Your task to perform on an android device: Turn off the flashlight Image 0: 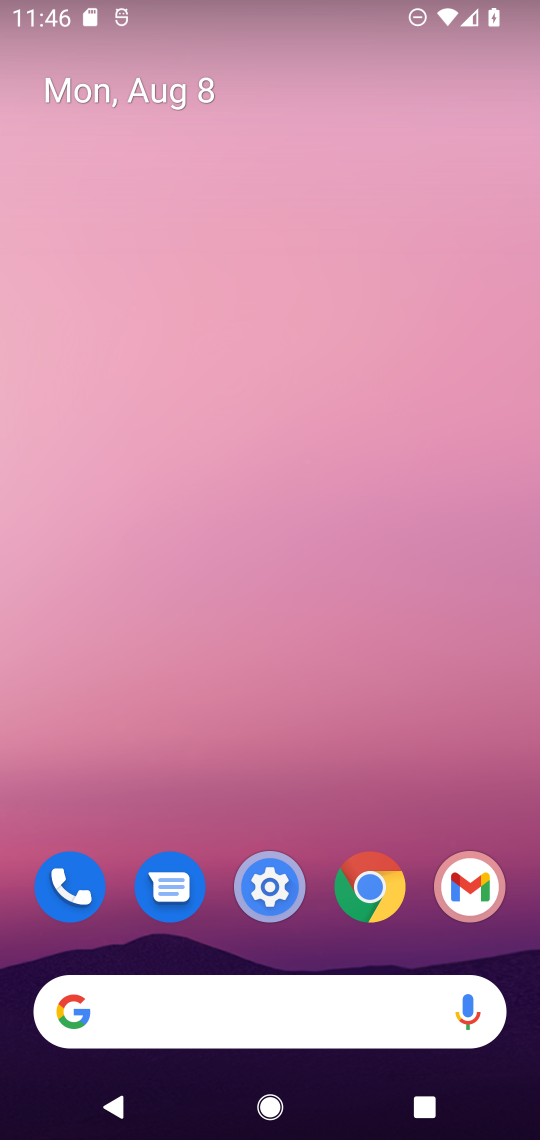
Step 0: click (270, 892)
Your task to perform on an android device: Turn off the flashlight Image 1: 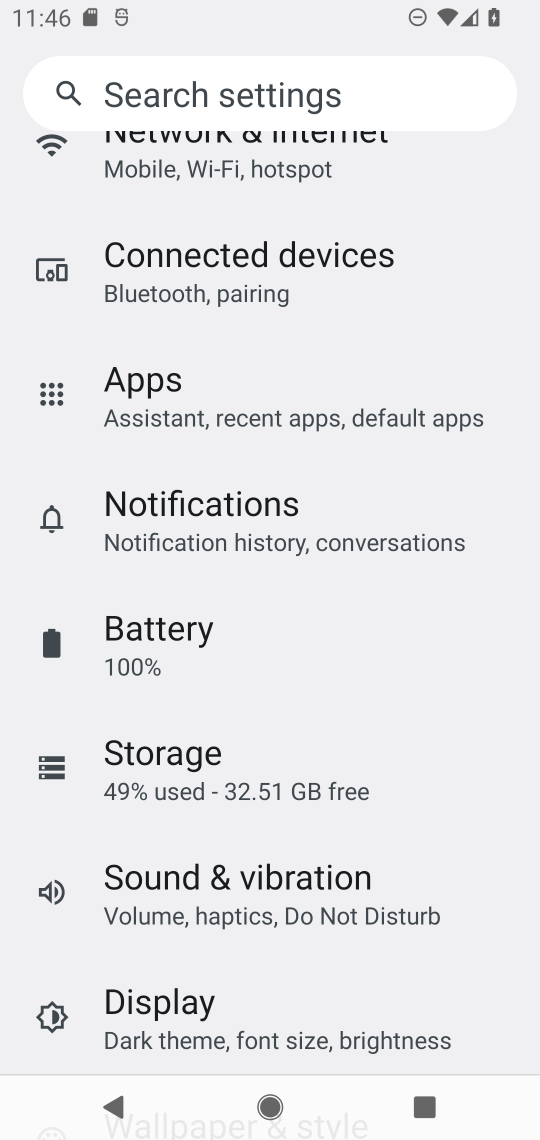
Step 1: click (165, 1023)
Your task to perform on an android device: Turn off the flashlight Image 2: 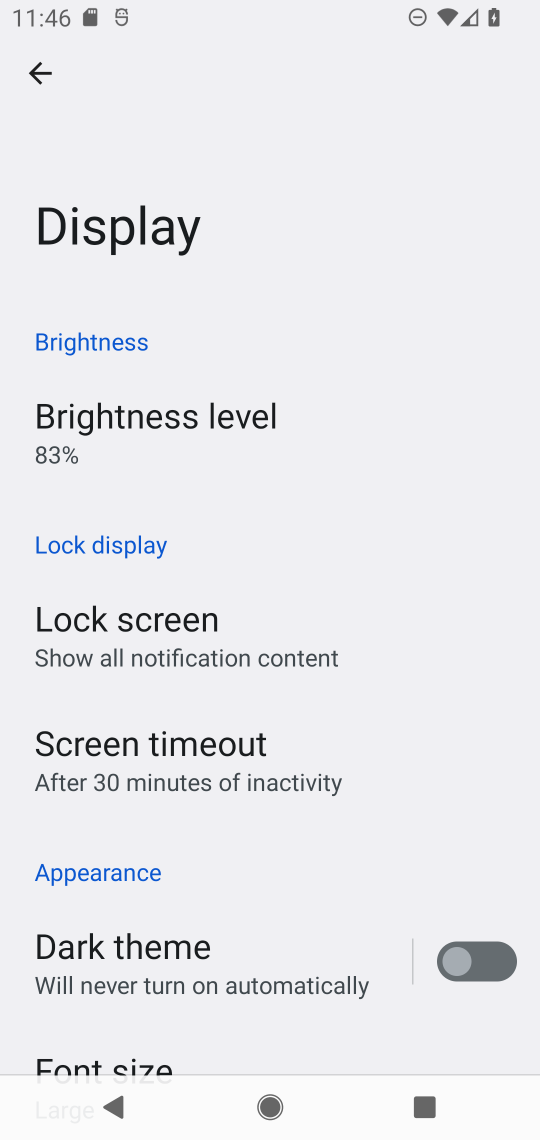
Step 2: task complete